Your task to perform on an android device: set default search engine in the chrome app Image 0: 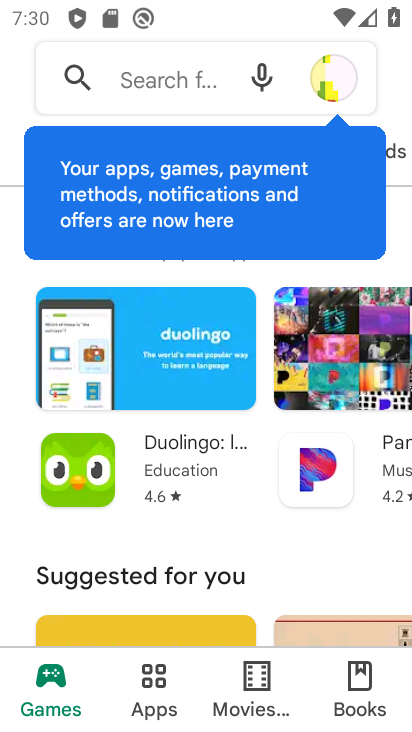
Step 0: press home button
Your task to perform on an android device: set default search engine in the chrome app Image 1: 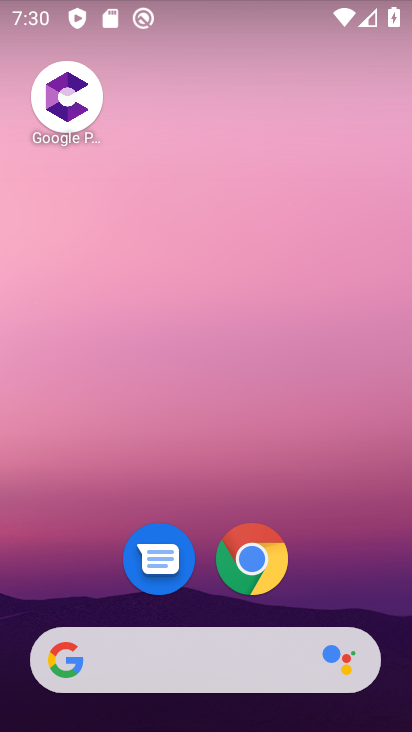
Step 1: click (253, 564)
Your task to perform on an android device: set default search engine in the chrome app Image 2: 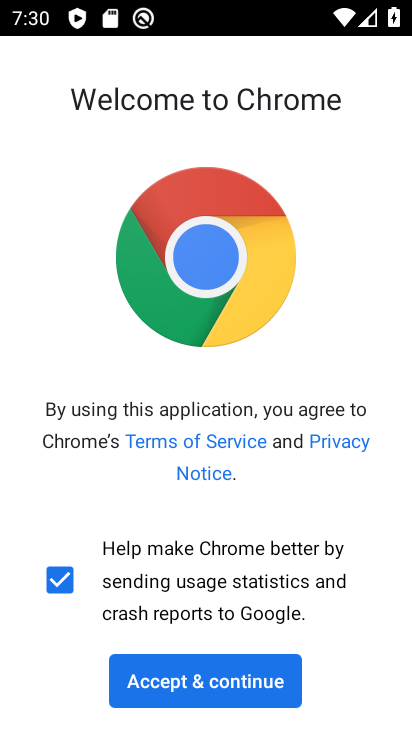
Step 2: click (184, 678)
Your task to perform on an android device: set default search engine in the chrome app Image 3: 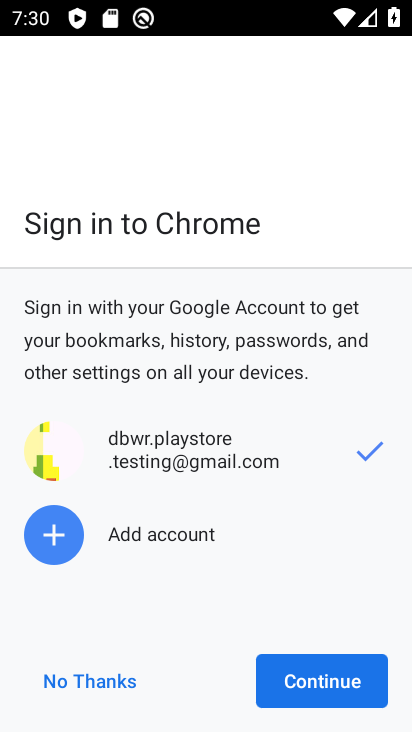
Step 3: click (364, 679)
Your task to perform on an android device: set default search engine in the chrome app Image 4: 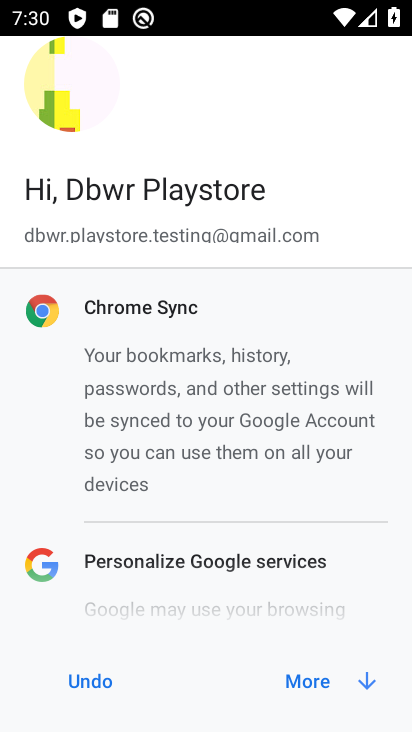
Step 4: click (355, 679)
Your task to perform on an android device: set default search engine in the chrome app Image 5: 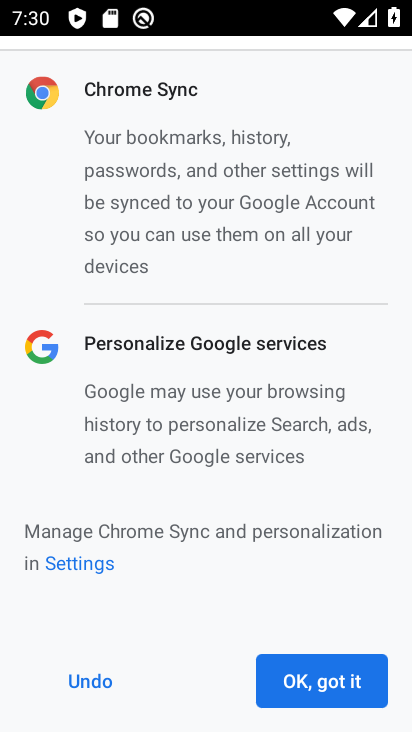
Step 5: click (355, 679)
Your task to perform on an android device: set default search engine in the chrome app Image 6: 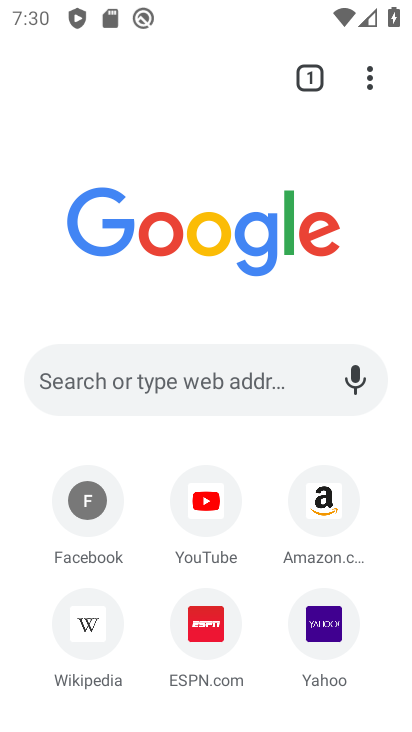
Step 6: click (377, 83)
Your task to perform on an android device: set default search engine in the chrome app Image 7: 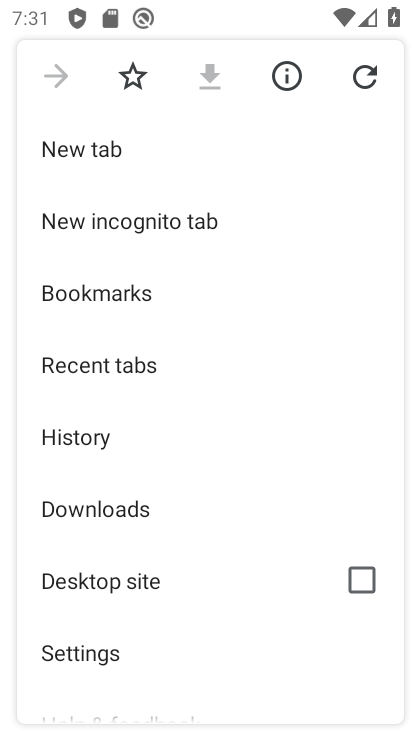
Step 7: drag from (140, 637) to (168, 163)
Your task to perform on an android device: set default search engine in the chrome app Image 8: 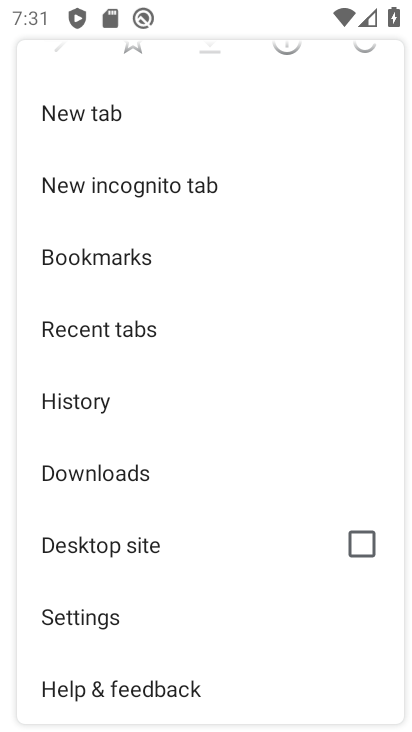
Step 8: drag from (162, 152) to (113, 660)
Your task to perform on an android device: set default search engine in the chrome app Image 9: 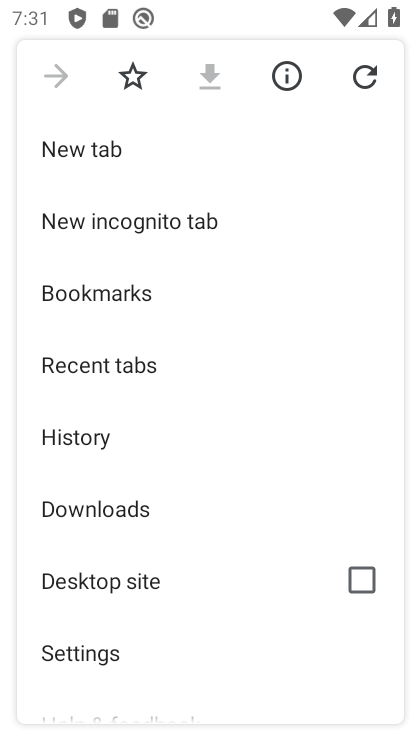
Step 9: drag from (247, 639) to (236, 226)
Your task to perform on an android device: set default search engine in the chrome app Image 10: 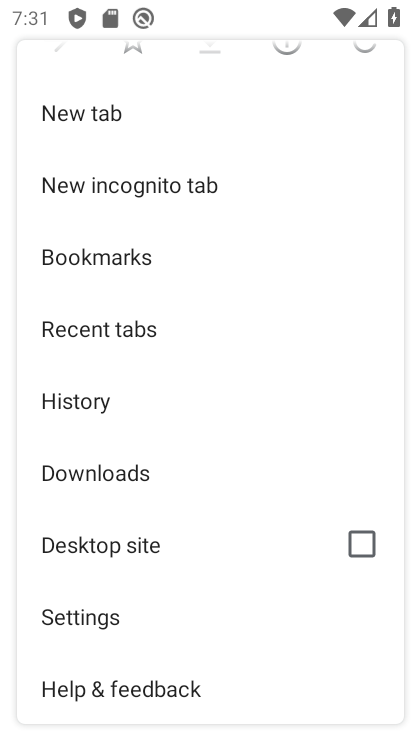
Step 10: drag from (214, 134) to (214, 704)
Your task to perform on an android device: set default search engine in the chrome app Image 11: 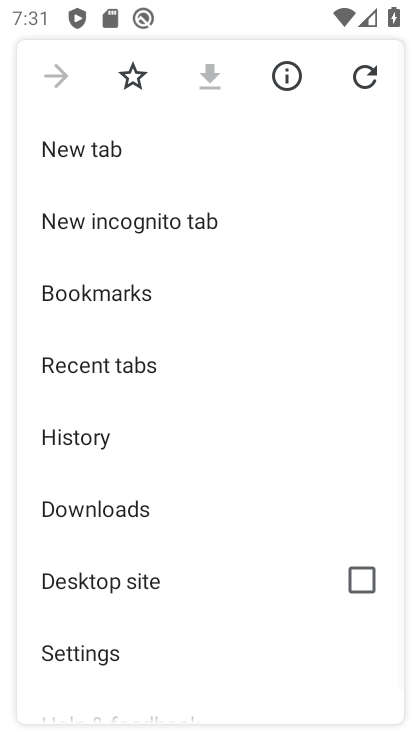
Step 11: drag from (156, 590) to (181, 111)
Your task to perform on an android device: set default search engine in the chrome app Image 12: 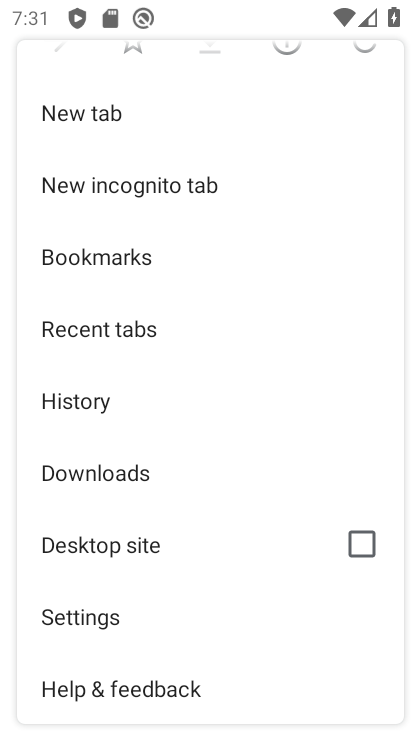
Step 12: click (96, 609)
Your task to perform on an android device: set default search engine in the chrome app Image 13: 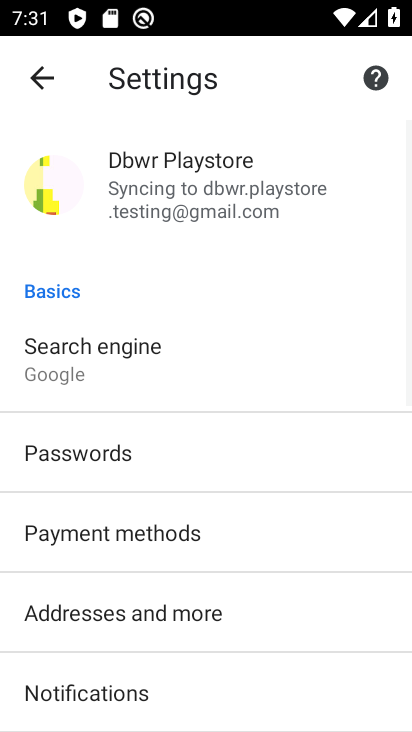
Step 13: click (76, 386)
Your task to perform on an android device: set default search engine in the chrome app Image 14: 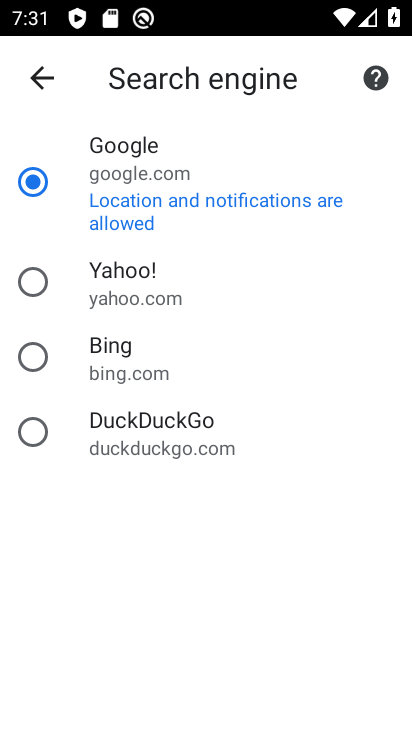
Step 14: click (149, 331)
Your task to perform on an android device: set default search engine in the chrome app Image 15: 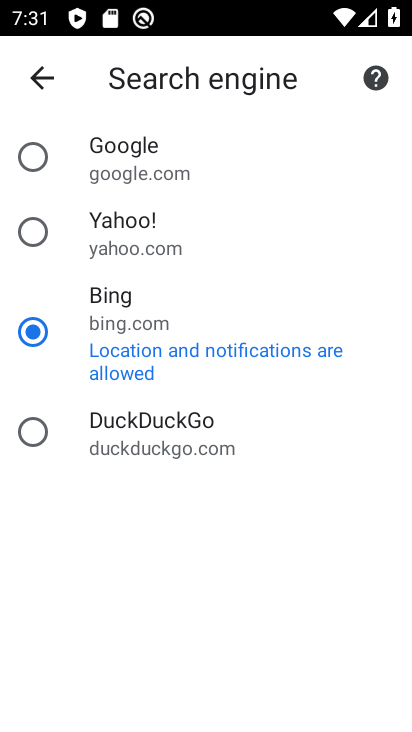
Step 15: task complete